Your task to perform on an android device: check out phone information Image 0: 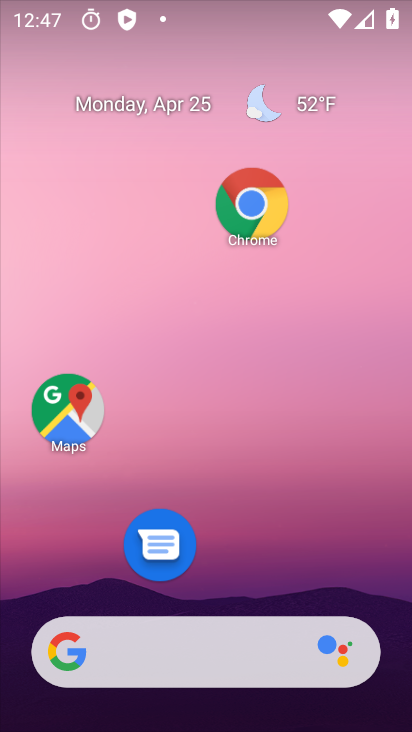
Step 0: drag from (259, 678) to (334, 221)
Your task to perform on an android device: check out phone information Image 1: 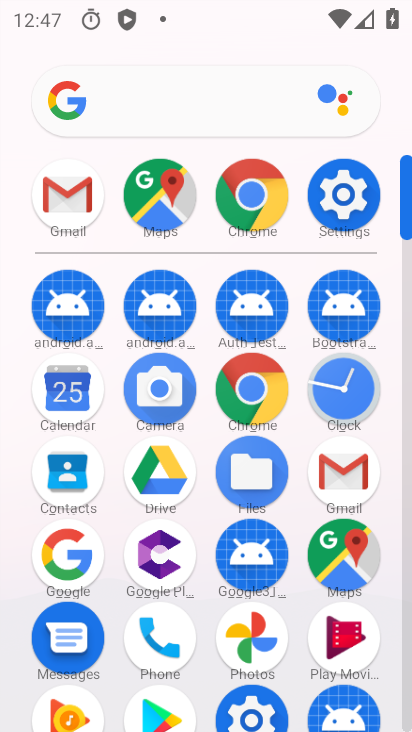
Step 1: click (340, 211)
Your task to perform on an android device: check out phone information Image 2: 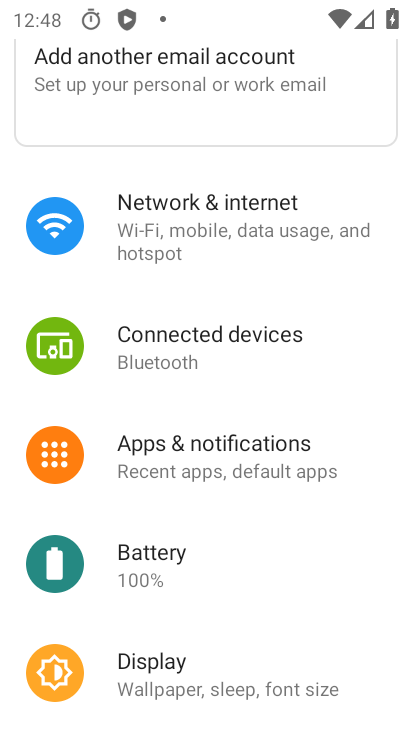
Step 2: drag from (162, 285) to (143, 508)
Your task to perform on an android device: check out phone information Image 3: 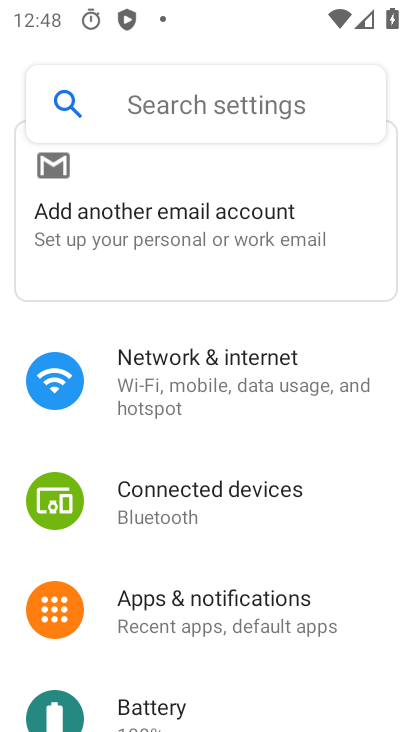
Step 3: click (180, 96)
Your task to perform on an android device: check out phone information Image 4: 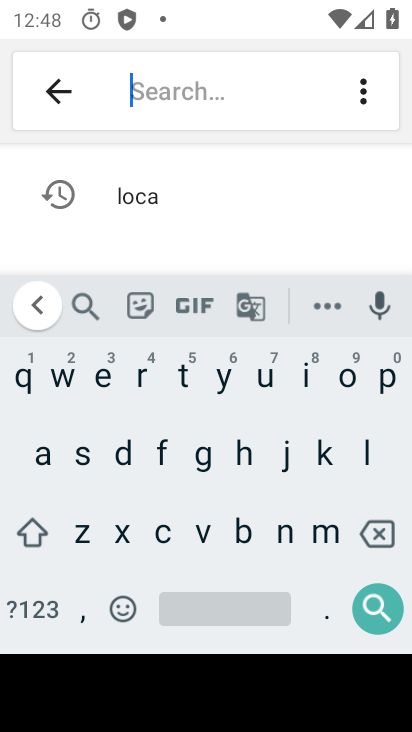
Step 4: click (383, 395)
Your task to perform on an android device: check out phone information Image 5: 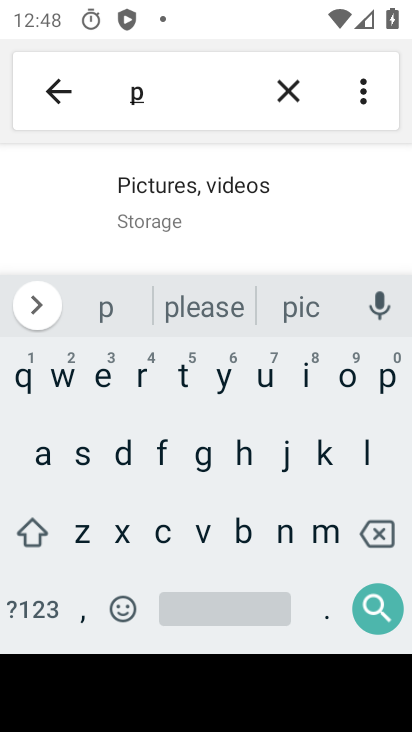
Step 5: click (238, 461)
Your task to perform on an android device: check out phone information Image 6: 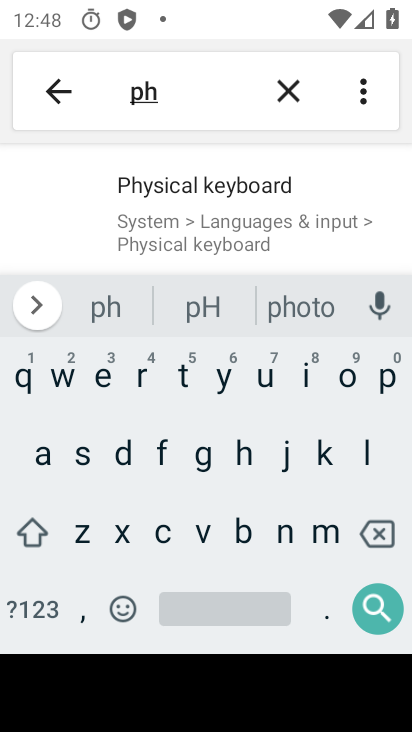
Step 6: click (344, 386)
Your task to perform on an android device: check out phone information Image 7: 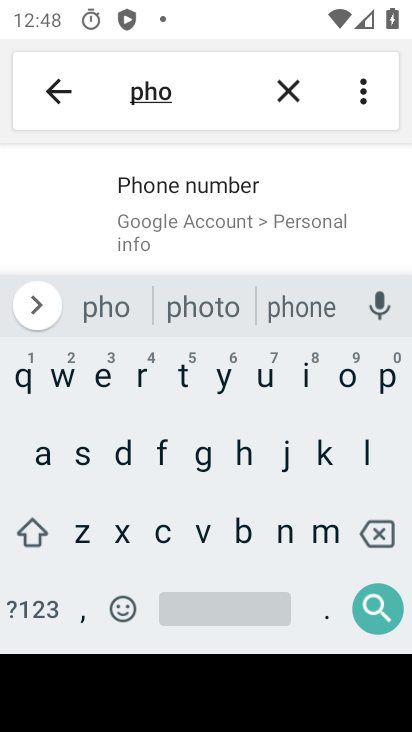
Step 7: click (379, 534)
Your task to perform on an android device: check out phone information Image 8: 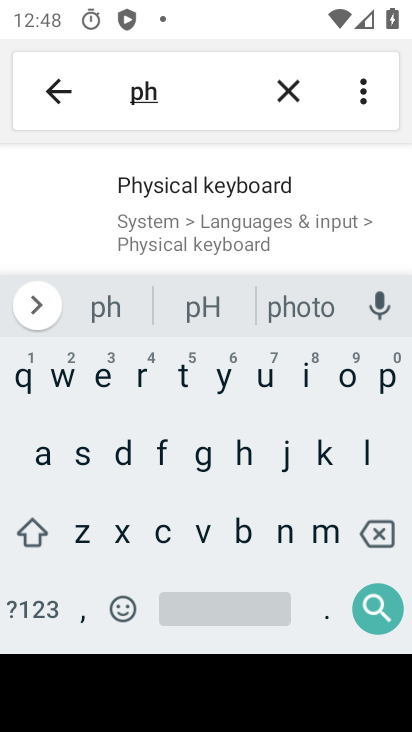
Step 8: click (379, 534)
Your task to perform on an android device: check out phone information Image 9: 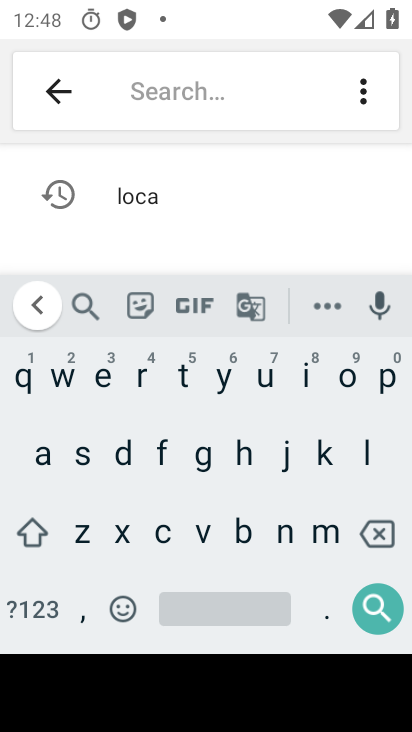
Step 9: click (37, 460)
Your task to perform on an android device: check out phone information Image 10: 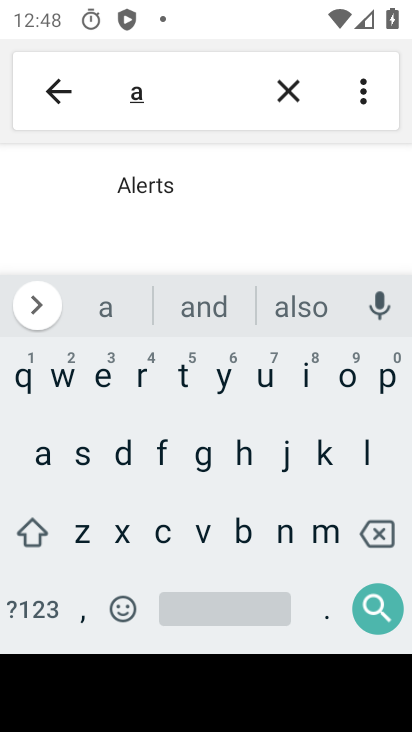
Step 10: click (242, 538)
Your task to perform on an android device: check out phone information Image 11: 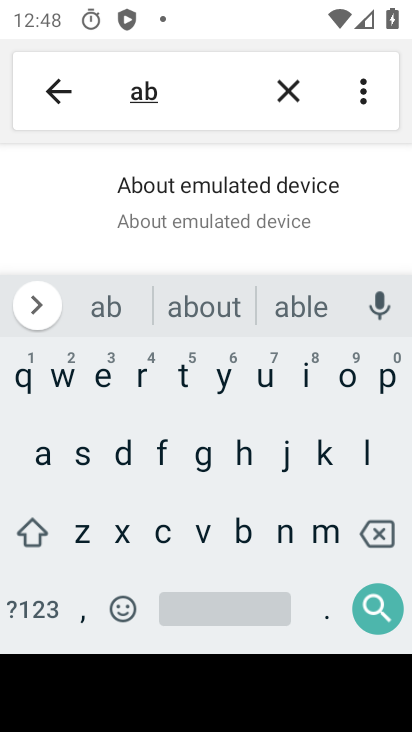
Step 11: click (257, 224)
Your task to perform on an android device: check out phone information Image 12: 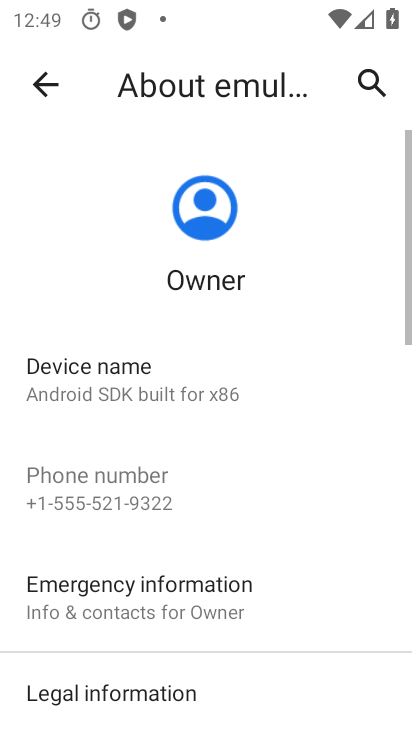
Step 12: task complete